Your task to perform on an android device: Turn off the flashlight Image 0: 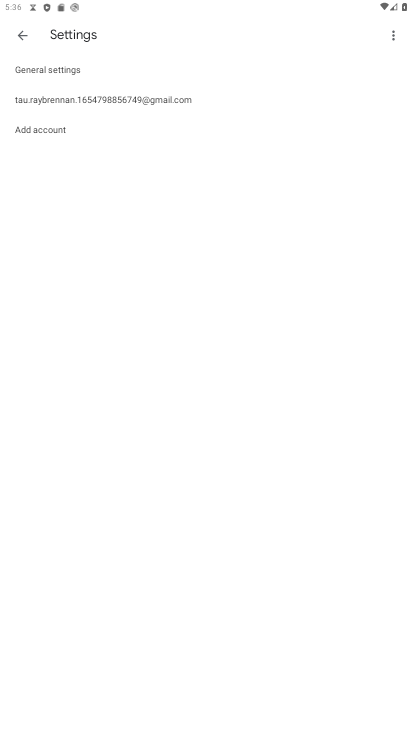
Step 0: press home button
Your task to perform on an android device: Turn off the flashlight Image 1: 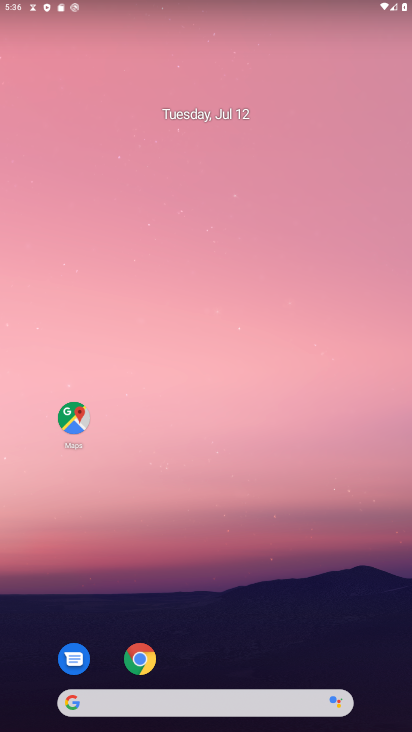
Step 1: drag from (195, 639) to (199, 205)
Your task to perform on an android device: Turn off the flashlight Image 2: 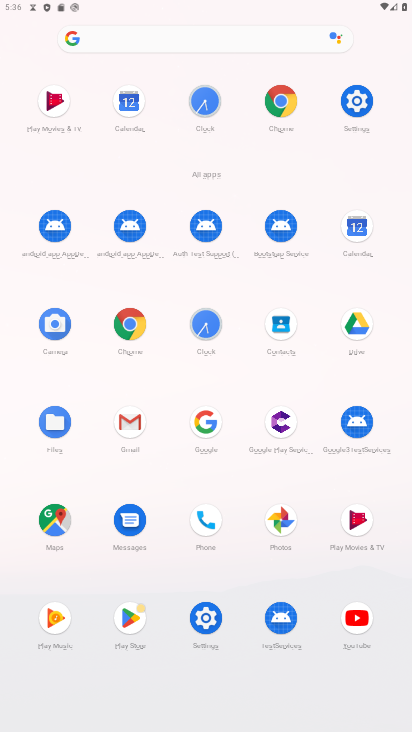
Step 2: click (197, 632)
Your task to perform on an android device: Turn off the flashlight Image 3: 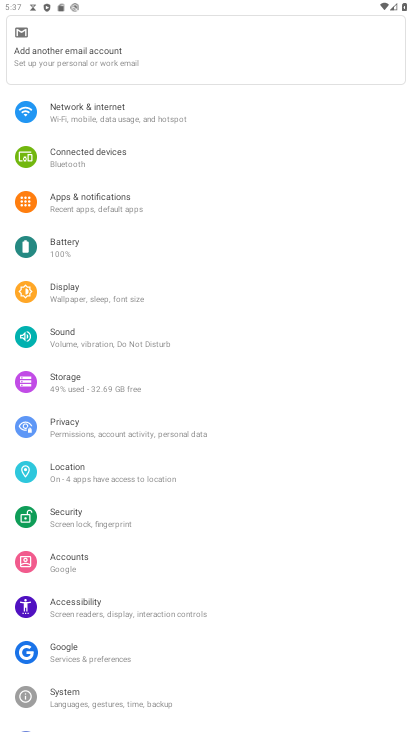
Step 3: drag from (171, 77) to (175, 463)
Your task to perform on an android device: Turn off the flashlight Image 4: 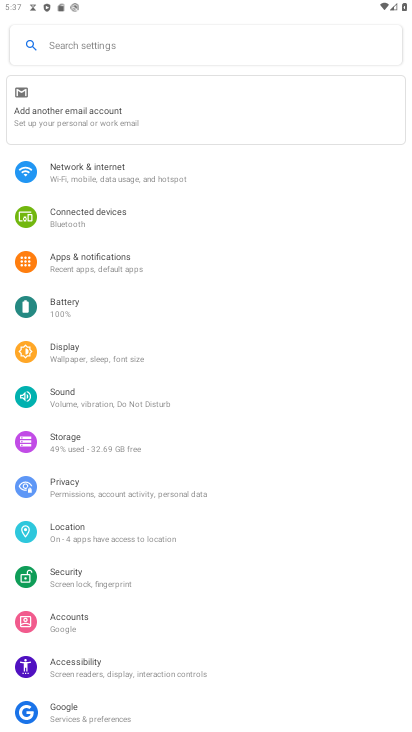
Step 4: click (165, 40)
Your task to perform on an android device: Turn off the flashlight Image 5: 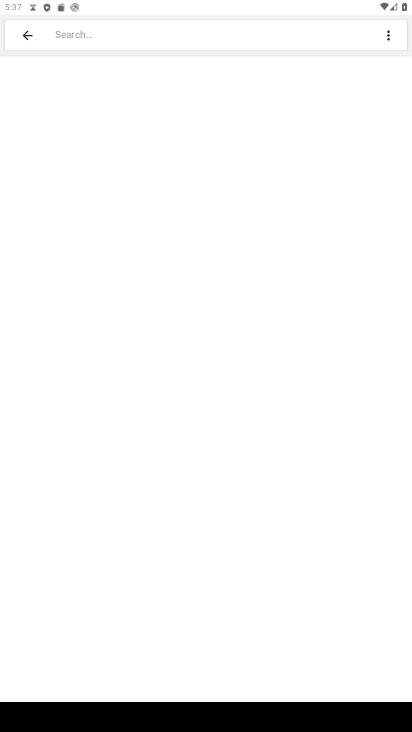
Step 5: type "flashlight"
Your task to perform on an android device: Turn off the flashlight Image 6: 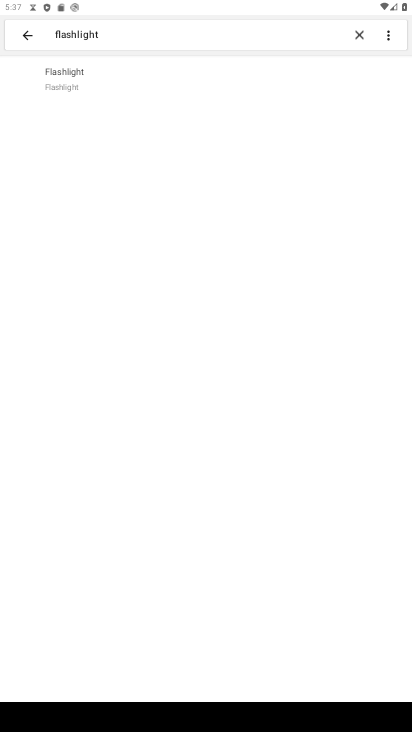
Step 6: click (84, 81)
Your task to perform on an android device: Turn off the flashlight Image 7: 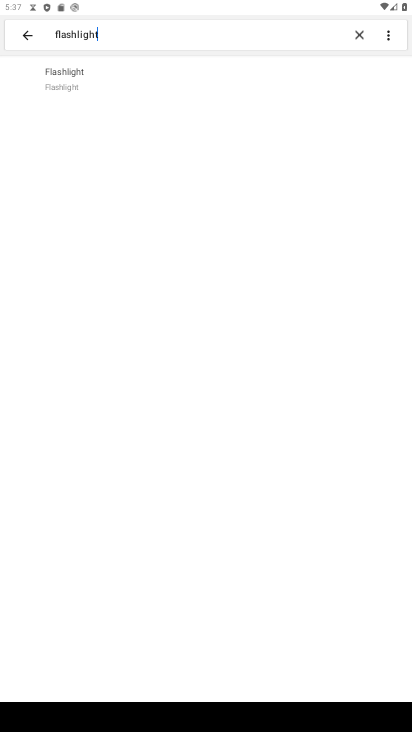
Step 7: task complete